Your task to perform on an android device: What is the recent news? Image 0: 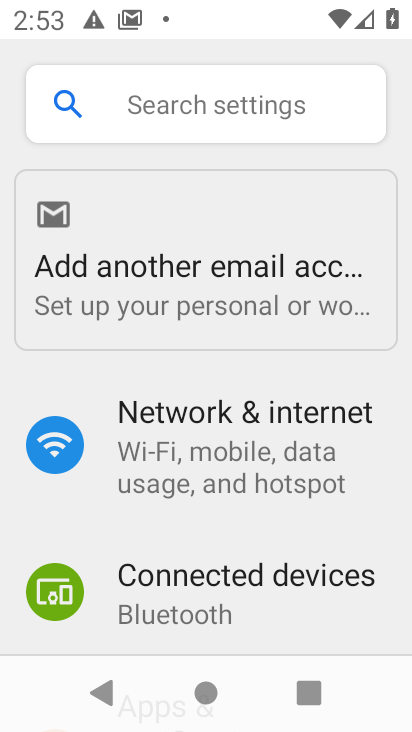
Step 0: press home button
Your task to perform on an android device: What is the recent news? Image 1: 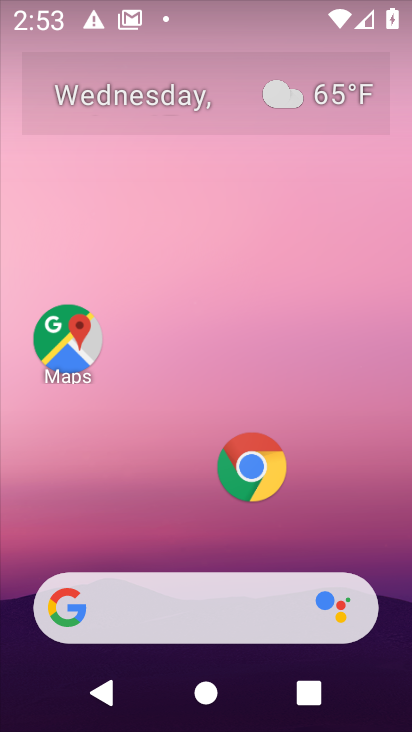
Step 1: click (180, 629)
Your task to perform on an android device: What is the recent news? Image 2: 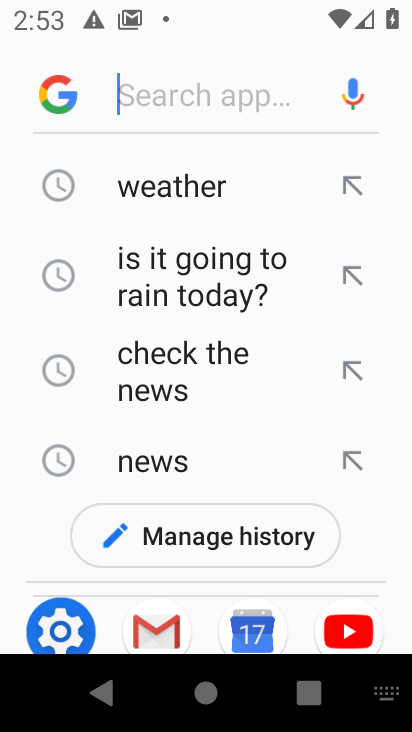
Step 2: type "What is the recent news?"
Your task to perform on an android device: What is the recent news? Image 3: 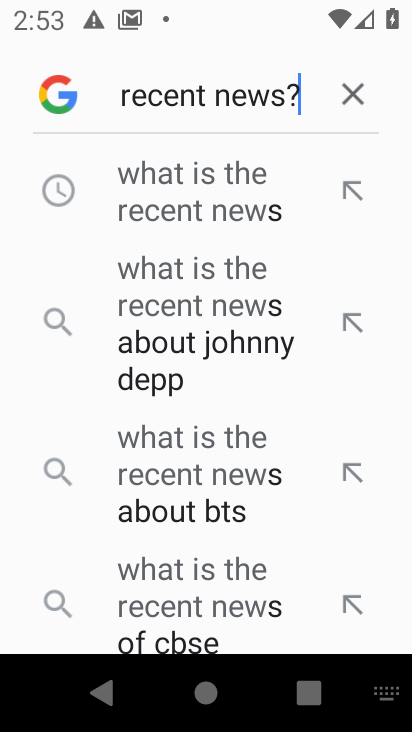
Step 3: type ""
Your task to perform on an android device: What is the recent news? Image 4: 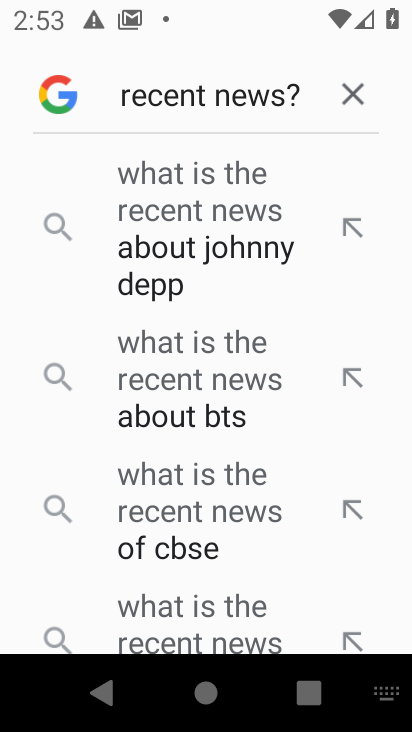
Step 4: type ""
Your task to perform on an android device: What is the recent news? Image 5: 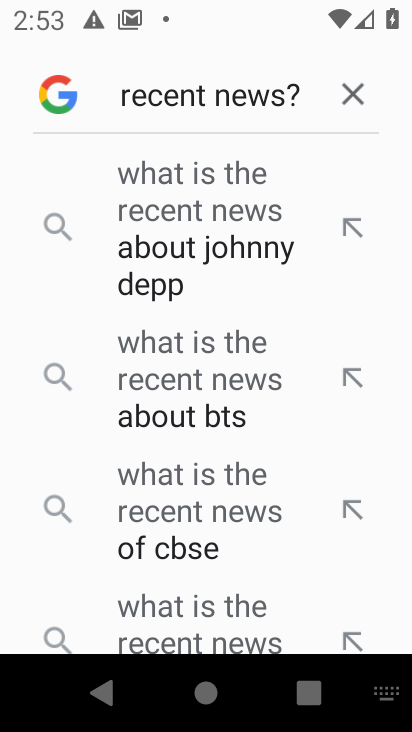
Step 5: press enter
Your task to perform on an android device: What is the recent news? Image 6: 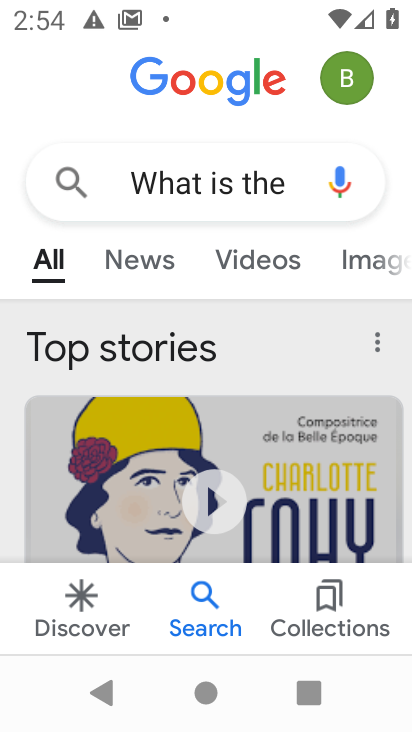
Step 6: press enter
Your task to perform on an android device: What is the recent news? Image 7: 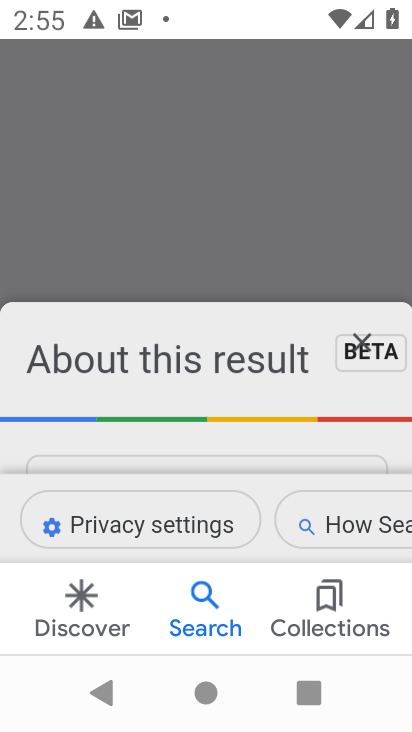
Step 7: task complete